Your task to perform on an android device: Open network settings Image 0: 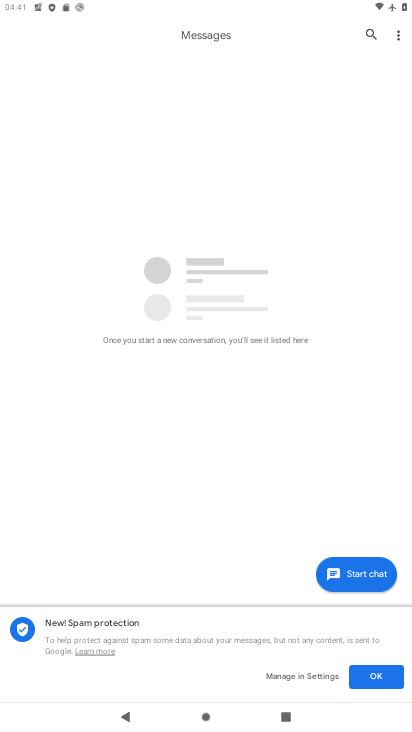
Step 0: press home button
Your task to perform on an android device: Open network settings Image 1: 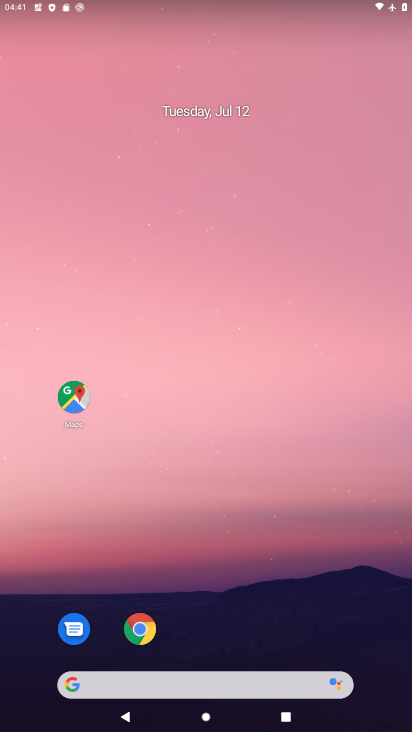
Step 1: drag from (240, 494) to (186, 5)
Your task to perform on an android device: Open network settings Image 2: 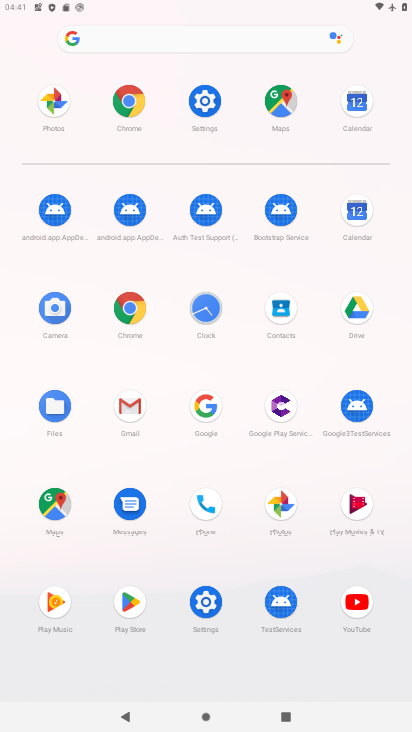
Step 2: click (203, 98)
Your task to perform on an android device: Open network settings Image 3: 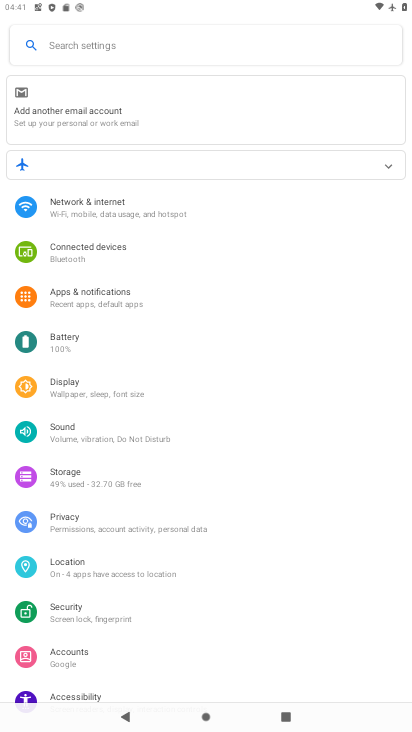
Step 3: click (100, 208)
Your task to perform on an android device: Open network settings Image 4: 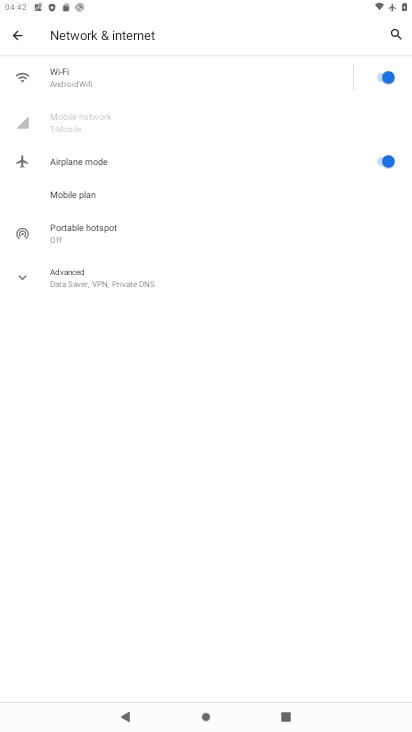
Step 4: task complete